Your task to perform on an android device: Set the phone to "Do not disturb". Image 0: 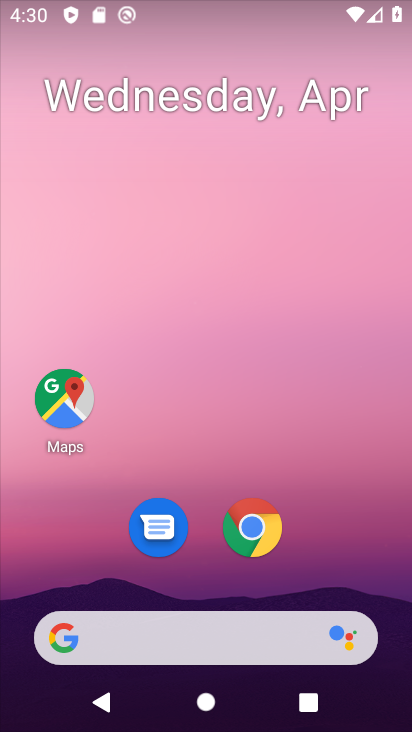
Step 0: drag from (357, 542) to (364, 4)
Your task to perform on an android device: Set the phone to "Do not disturb". Image 1: 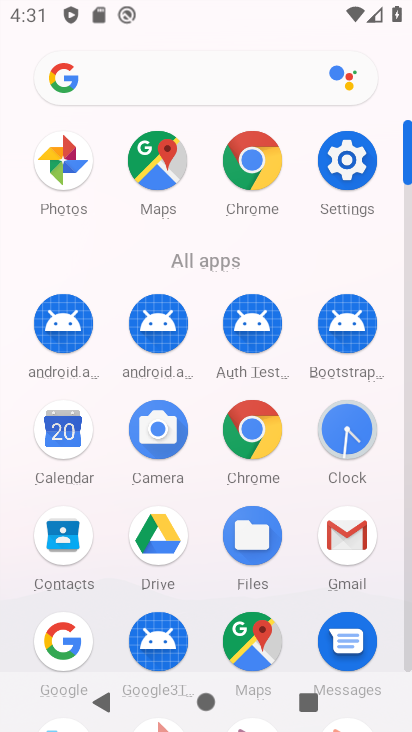
Step 1: click (352, 161)
Your task to perform on an android device: Set the phone to "Do not disturb". Image 2: 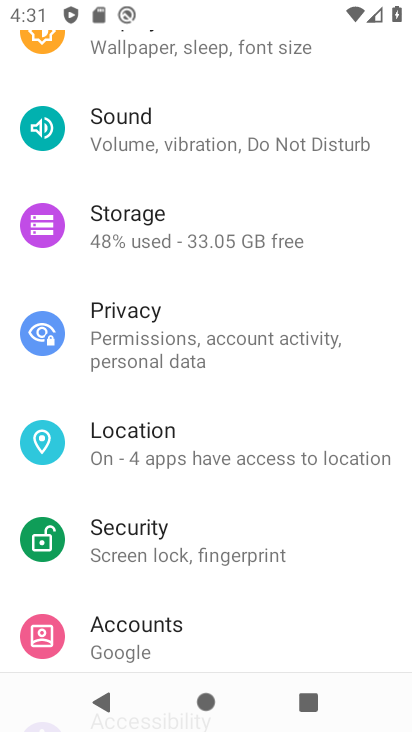
Step 2: click (139, 148)
Your task to perform on an android device: Set the phone to "Do not disturb". Image 3: 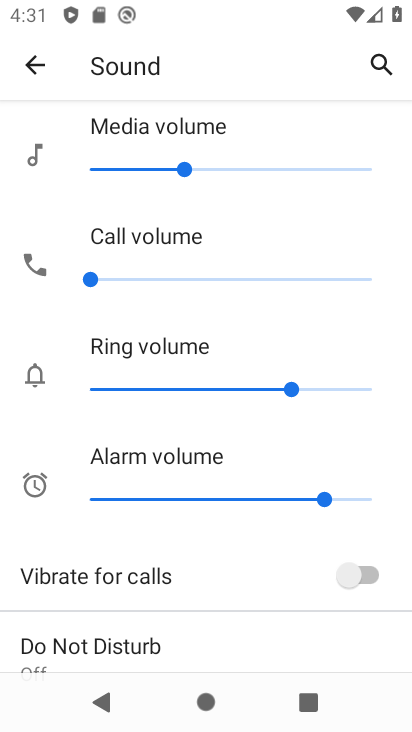
Step 3: drag from (256, 575) to (225, 201)
Your task to perform on an android device: Set the phone to "Do not disturb". Image 4: 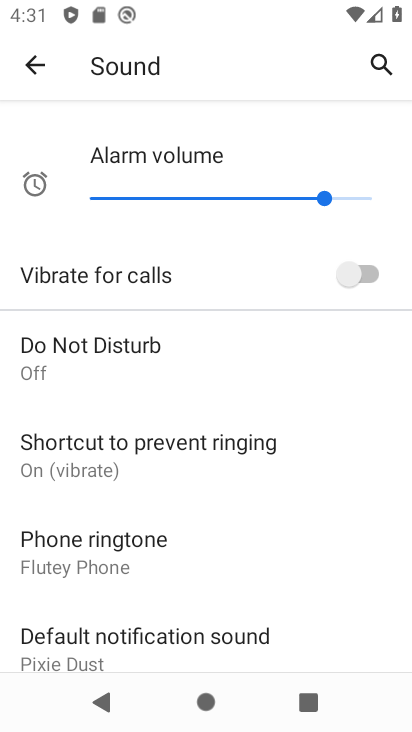
Step 4: click (96, 349)
Your task to perform on an android device: Set the phone to "Do not disturb". Image 5: 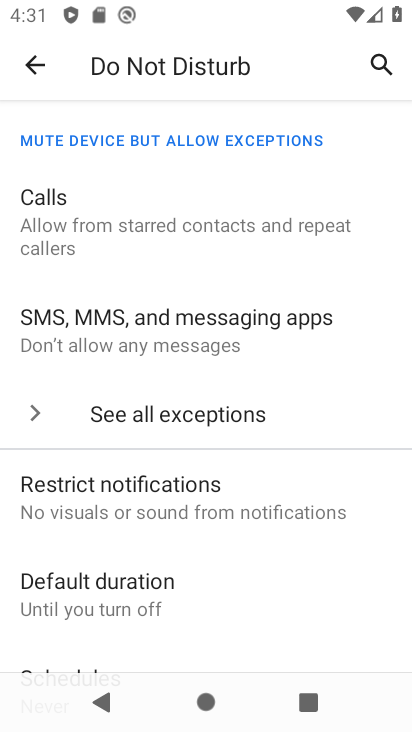
Step 5: drag from (177, 501) to (172, 93)
Your task to perform on an android device: Set the phone to "Do not disturb". Image 6: 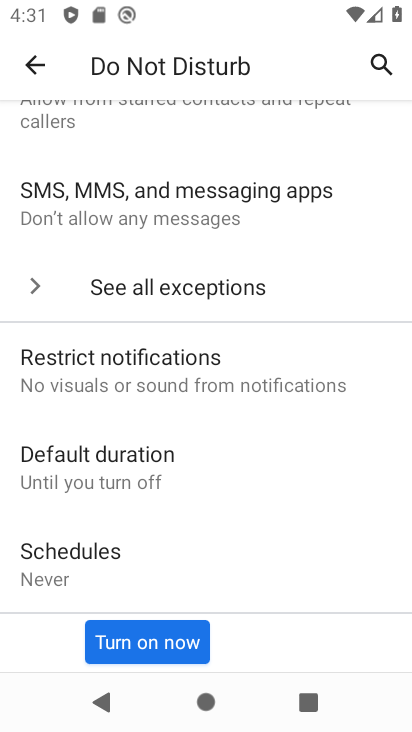
Step 6: click (145, 644)
Your task to perform on an android device: Set the phone to "Do not disturb". Image 7: 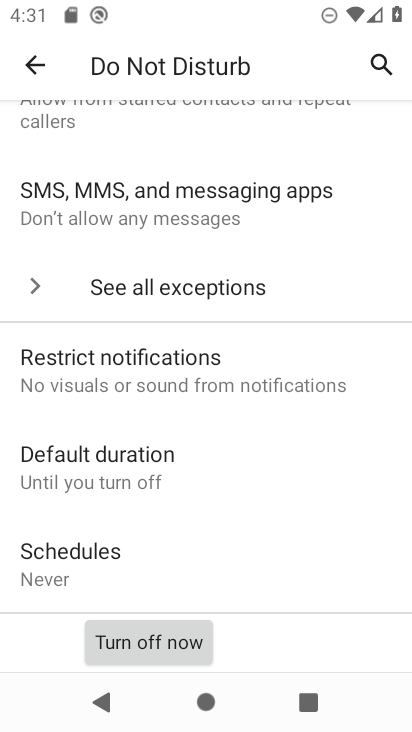
Step 7: task complete